Your task to perform on an android device: empty trash in the gmail app Image 0: 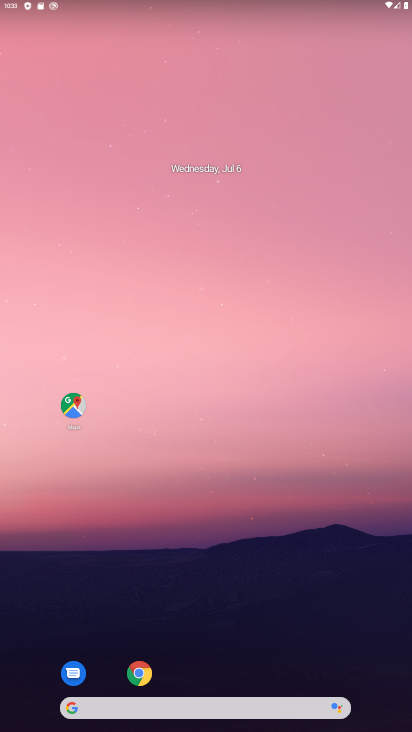
Step 0: drag from (202, 671) to (213, 72)
Your task to perform on an android device: empty trash in the gmail app Image 1: 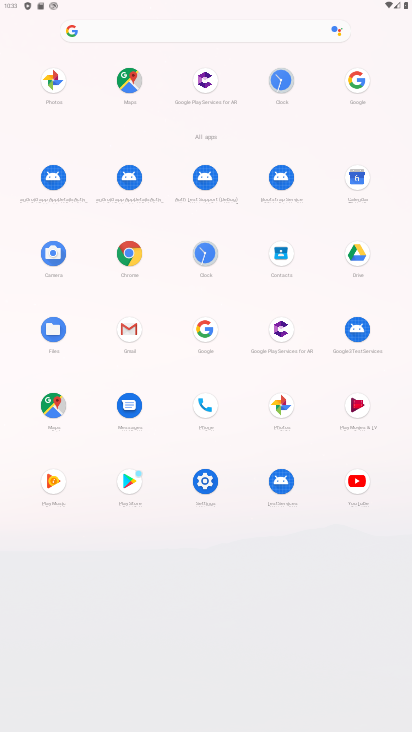
Step 1: click (126, 332)
Your task to perform on an android device: empty trash in the gmail app Image 2: 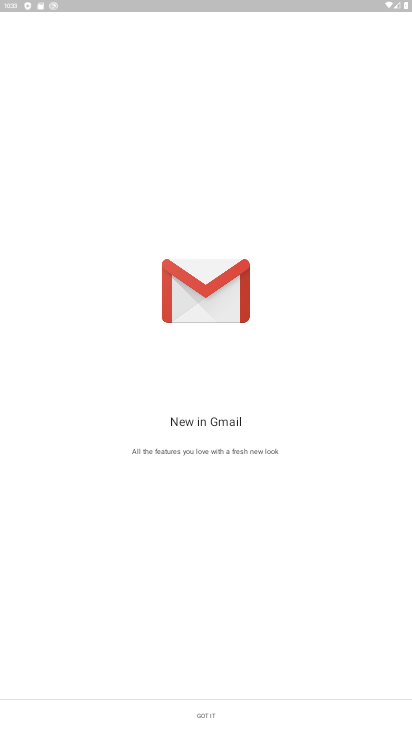
Step 2: click (204, 710)
Your task to perform on an android device: empty trash in the gmail app Image 3: 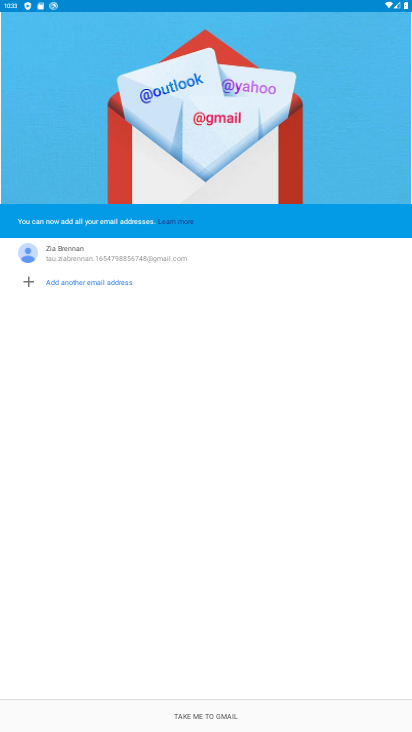
Step 3: click (204, 710)
Your task to perform on an android device: empty trash in the gmail app Image 4: 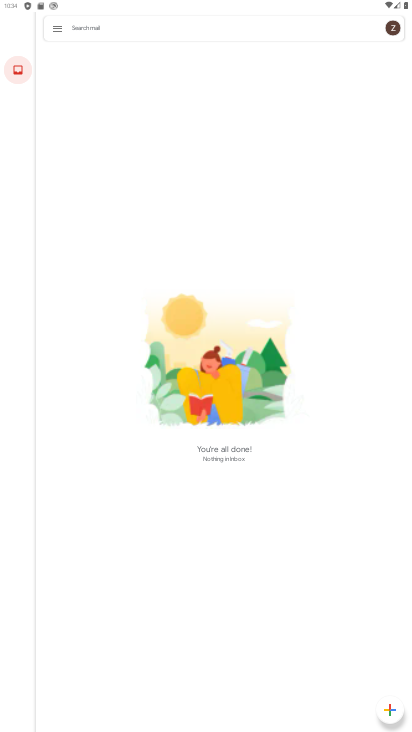
Step 4: click (57, 28)
Your task to perform on an android device: empty trash in the gmail app Image 5: 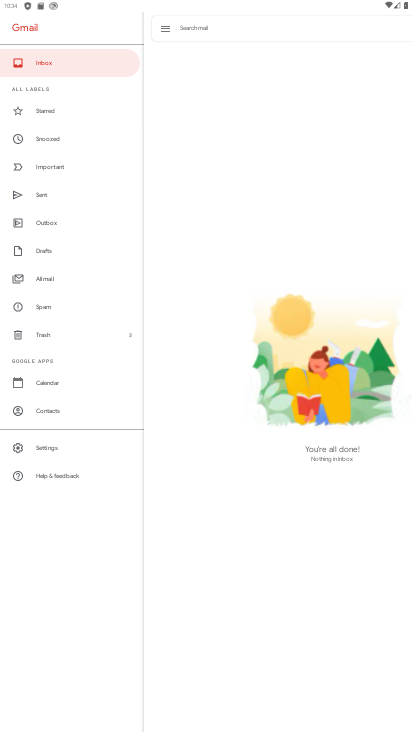
Step 5: click (54, 334)
Your task to perform on an android device: empty trash in the gmail app Image 6: 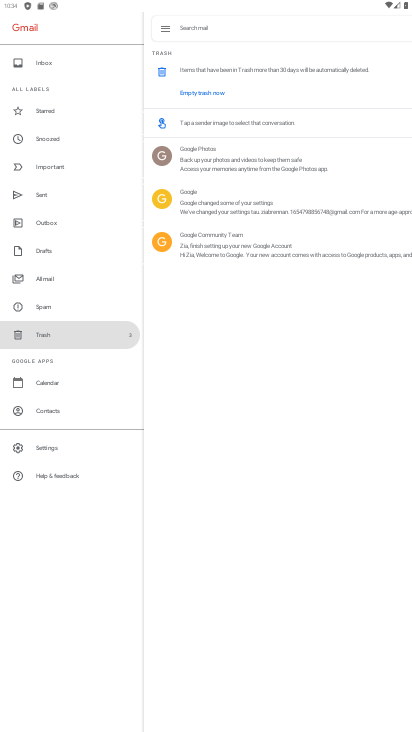
Step 6: click (203, 93)
Your task to perform on an android device: empty trash in the gmail app Image 7: 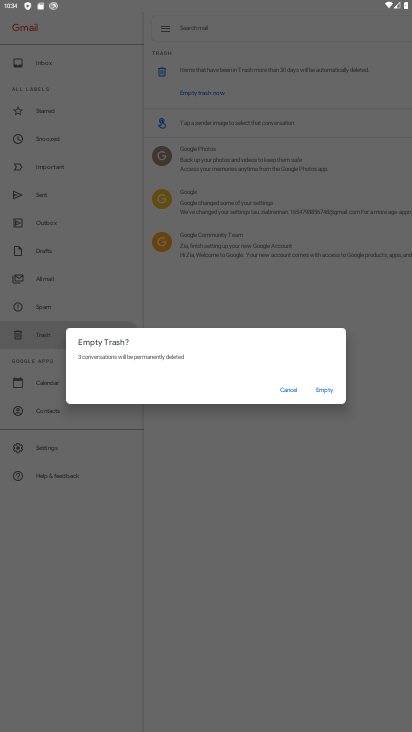
Step 7: click (321, 389)
Your task to perform on an android device: empty trash in the gmail app Image 8: 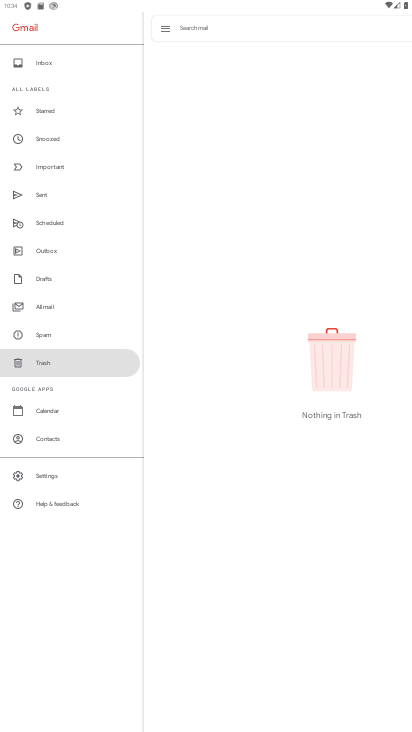
Step 8: task complete